Your task to perform on an android device: open a new tab in the chrome app Image 0: 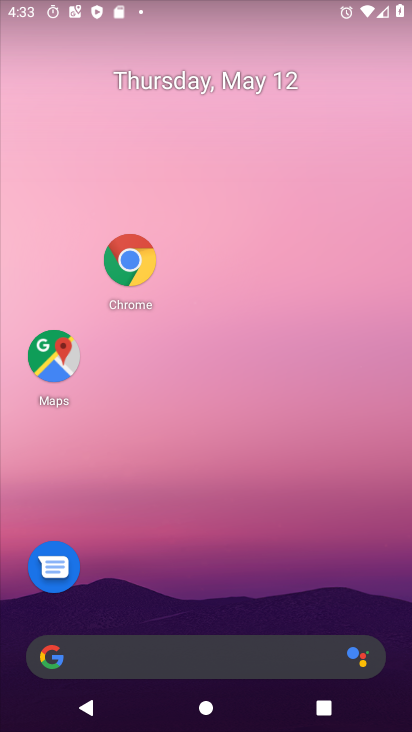
Step 0: click (127, 267)
Your task to perform on an android device: open a new tab in the chrome app Image 1: 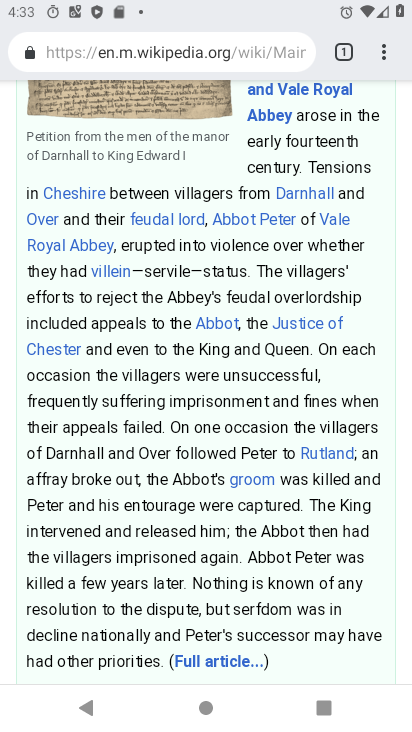
Step 1: click (382, 51)
Your task to perform on an android device: open a new tab in the chrome app Image 2: 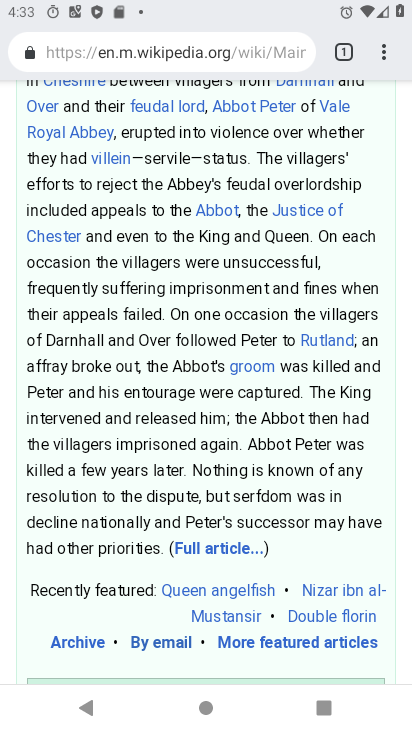
Step 2: click (378, 52)
Your task to perform on an android device: open a new tab in the chrome app Image 3: 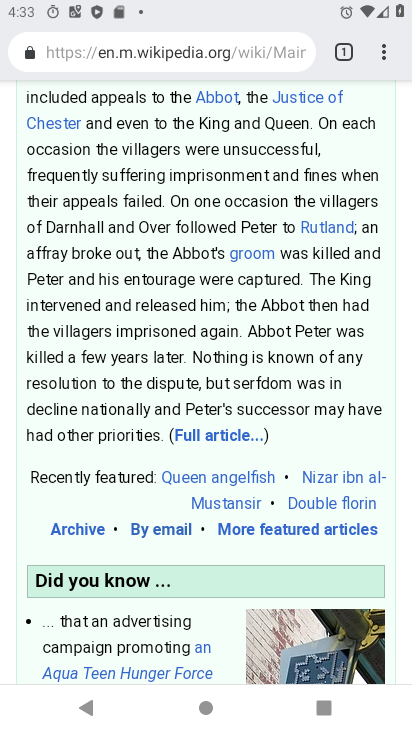
Step 3: click (383, 54)
Your task to perform on an android device: open a new tab in the chrome app Image 4: 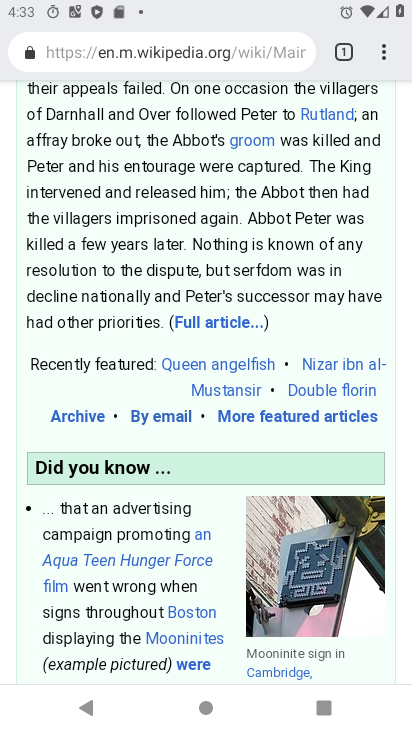
Step 4: click (388, 42)
Your task to perform on an android device: open a new tab in the chrome app Image 5: 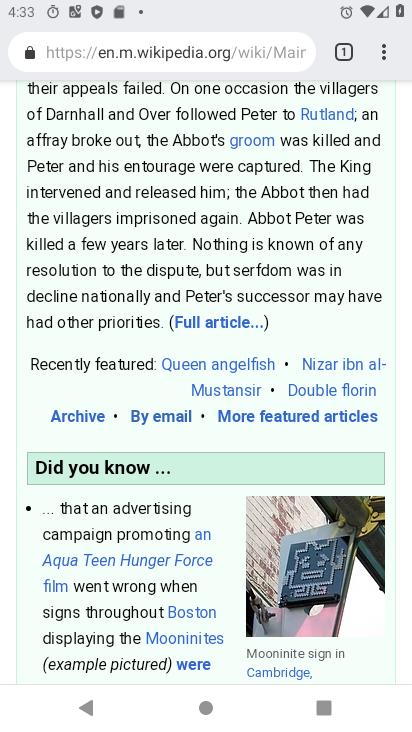
Step 5: click (400, 52)
Your task to perform on an android device: open a new tab in the chrome app Image 6: 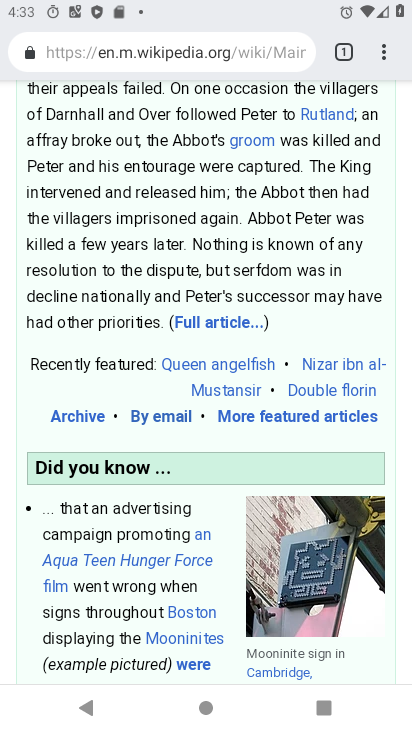
Step 6: click (379, 47)
Your task to perform on an android device: open a new tab in the chrome app Image 7: 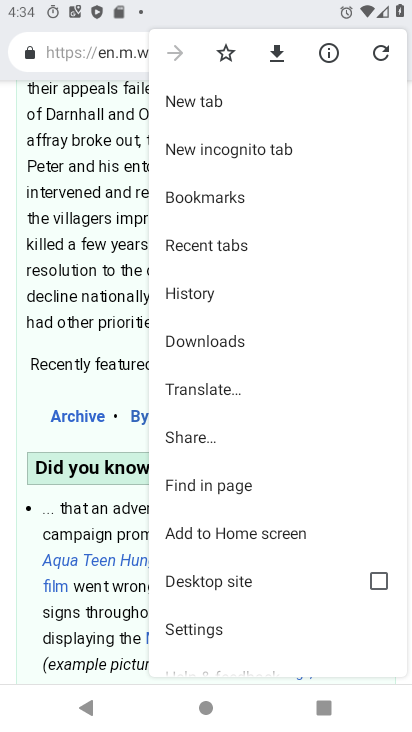
Step 7: click (196, 117)
Your task to perform on an android device: open a new tab in the chrome app Image 8: 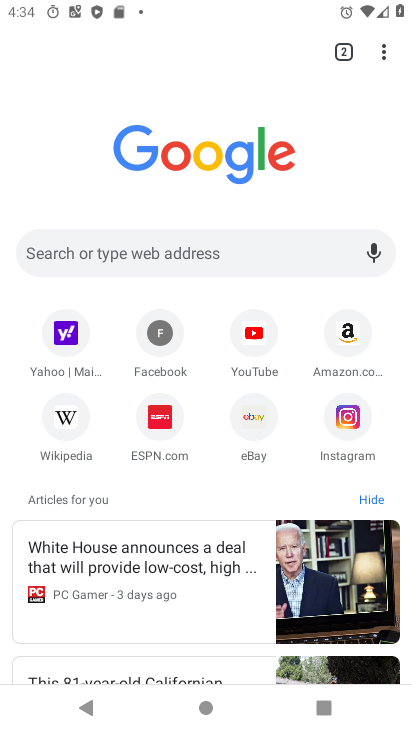
Step 8: task complete